Your task to perform on an android device: Go to Android settings Image 0: 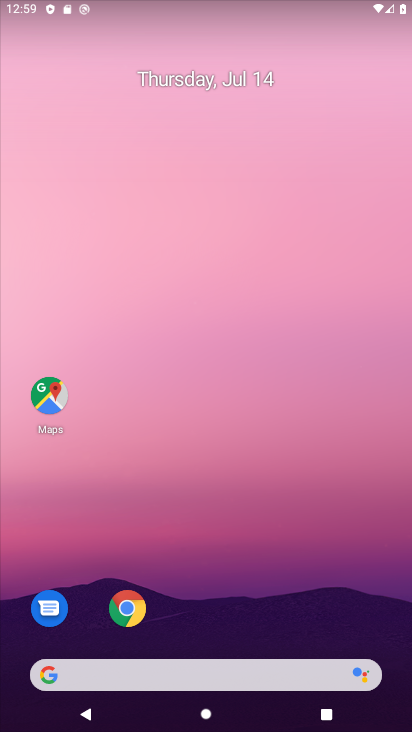
Step 0: drag from (221, 668) to (221, 274)
Your task to perform on an android device: Go to Android settings Image 1: 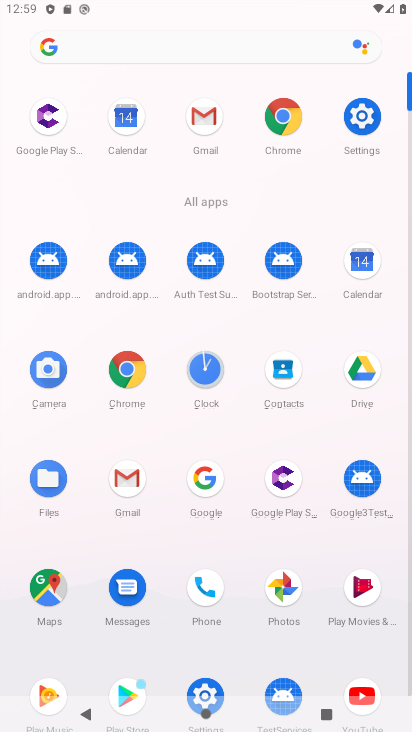
Step 1: click (347, 126)
Your task to perform on an android device: Go to Android settings Image 2: 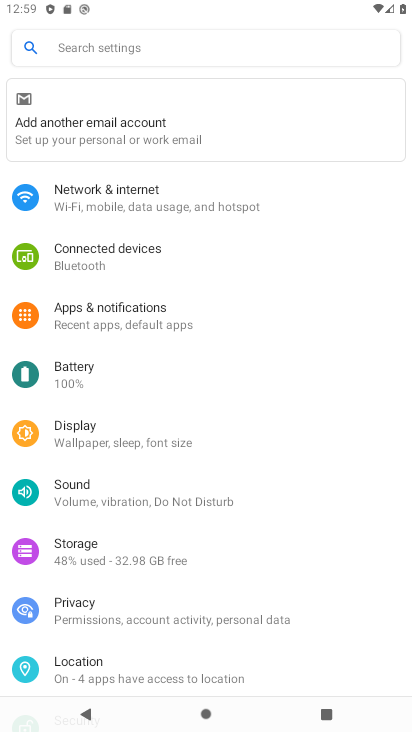
Step 2: task complete